Your task to perform on an android device: change notifications settings Image 0: 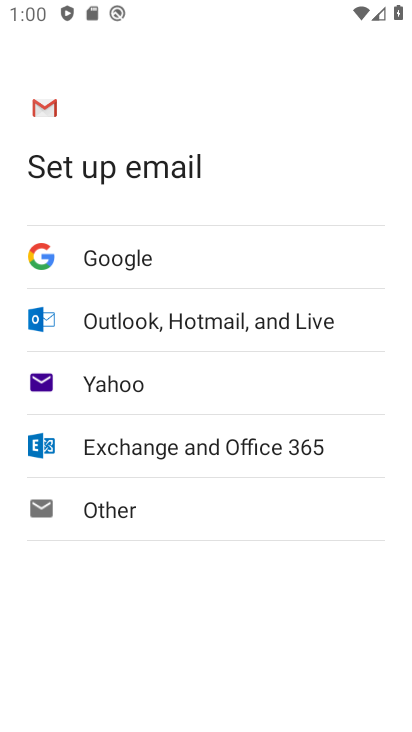
Step 0: press home button
Your task to perform on an android device: change notifications settings Image 1: 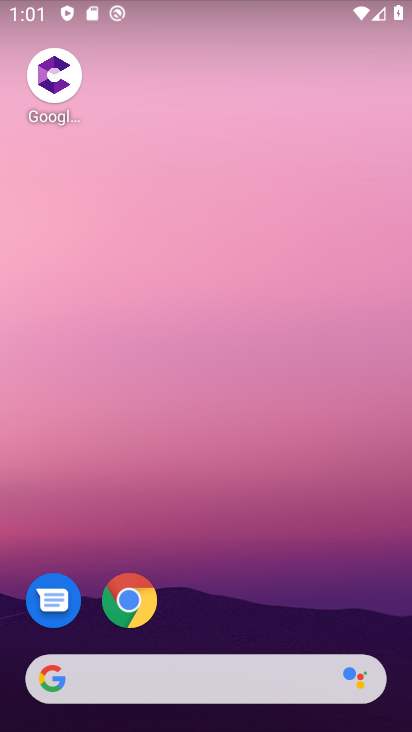
Step 1: drag from (200, 483) to (200, 13)
Your task to perform on an android device: change notifications settings Image 2: 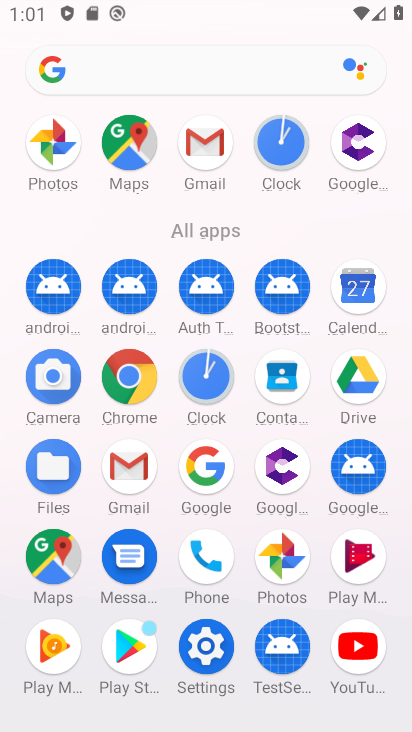
Step 2: click (197, 642)
Your task to perform on an android device: change notifications settings Image 3: 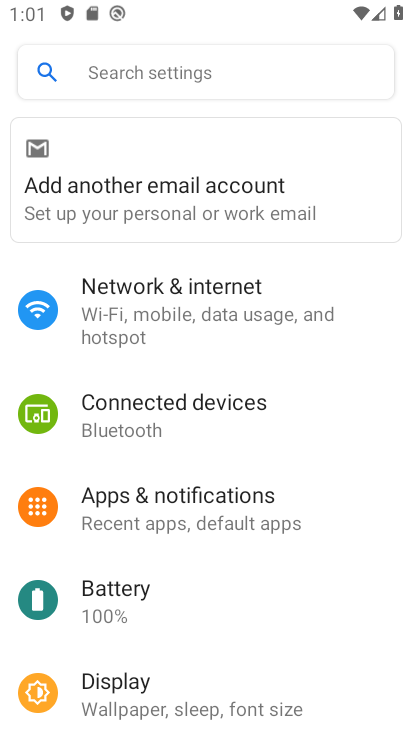
Step 3: click (225, 496)
Your task to perform on an android device: change notifications settings Image 4: 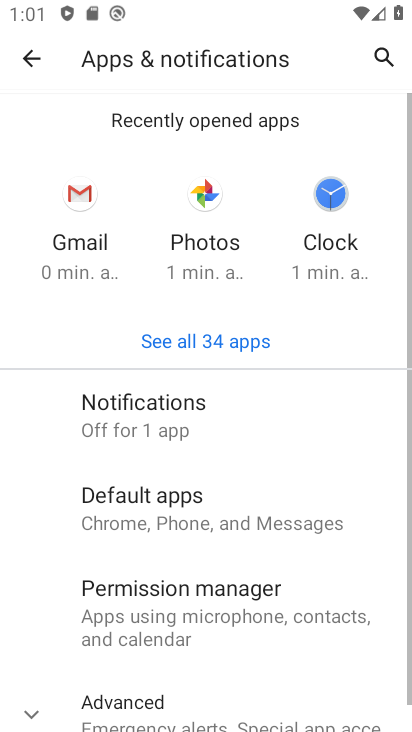
Step 4: click (140, 418)
Your task to perform on an android device: change notifications settings Image 5: 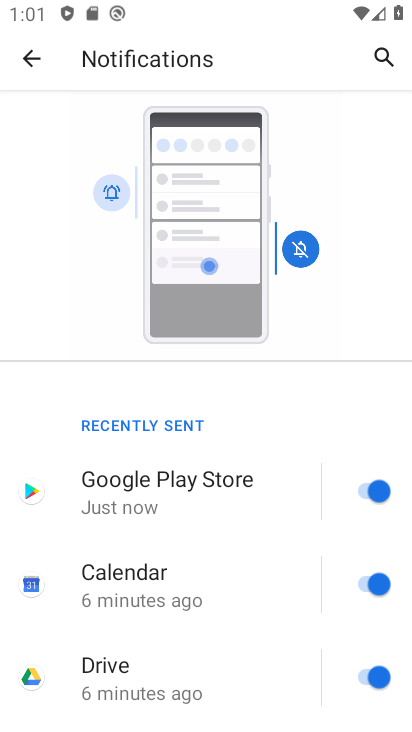
Step 5: drag from (242, 692) to (243, 233)
Your task to perform on an android device: change notifications settings Image 6: 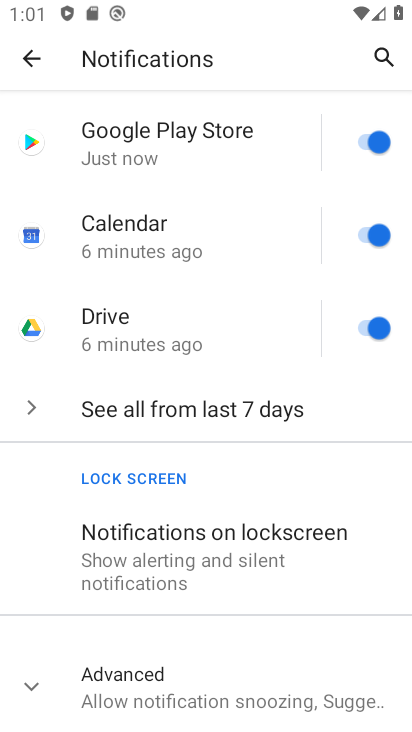
Step 6: drag from (261, 671) to (257, 248)
Your task to perform on an android device: change notifications settings Image 7: 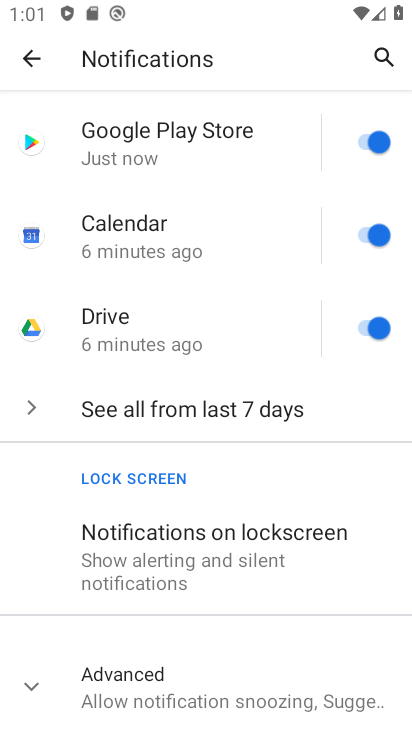
Step 7: click (126, 671)
Your task to perform on an android device: change notifications settings Image 8: 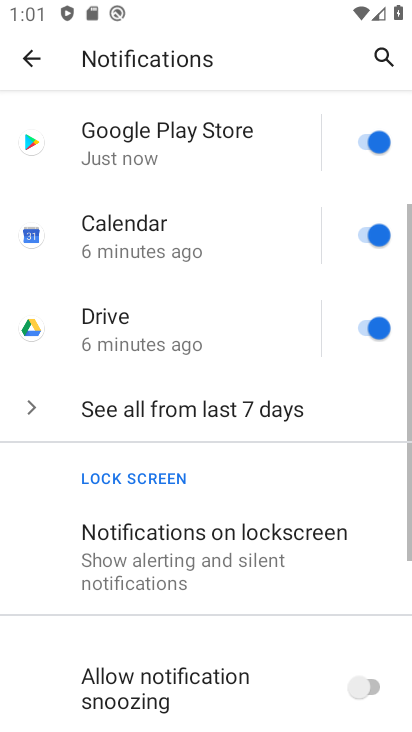
Step 8: drag from (297, 707) to (298, 347)
Your task to perform on an android device: change notifications settings Image 9: 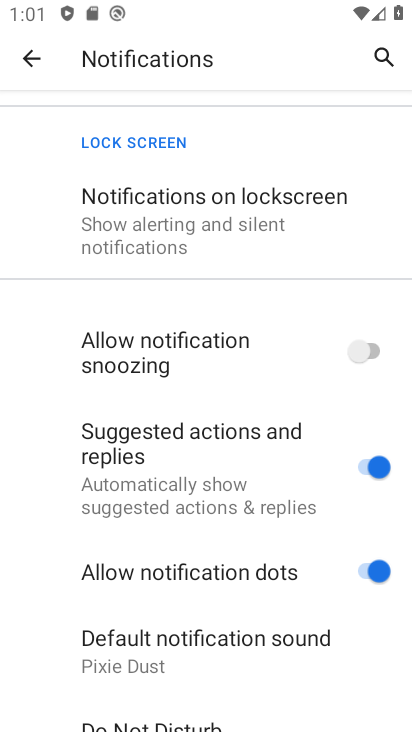
Step 9: click (377, 346)
Your task to perform on an android device: change notifications settings Image 10: 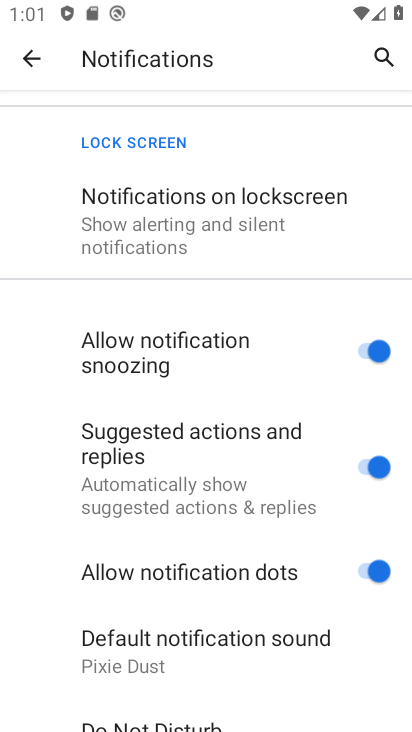
Step 10: task complete